Your task to perform on an android device: Show me popular games on the Play Store Image 0: 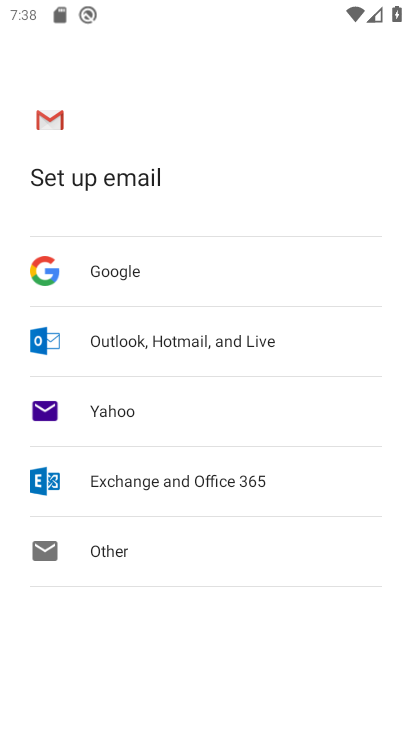
Step 0: press home button
Your task to perform on an android device: Show me popular games on the Play Store Image 1: 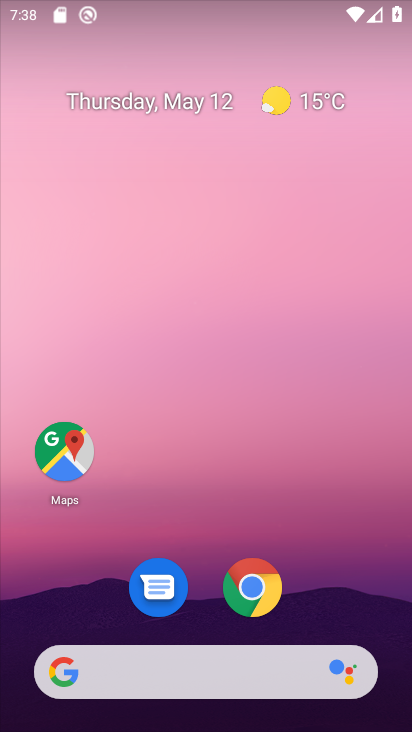
Step 1: drag from (386, 648) to (279, 88)
Your task to perform on an android device: Show me popular games on the Play Store Image 2: 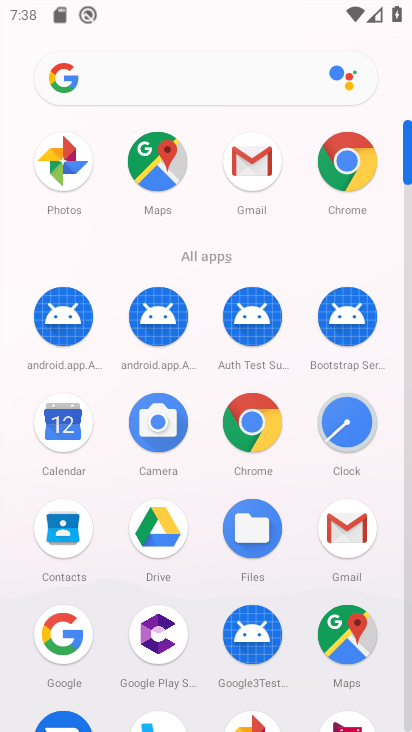
Step 2: drag from (310, 618) to (306, 293)
Your task to perform on an android device: Show me popular games on the Play Store Image 3: 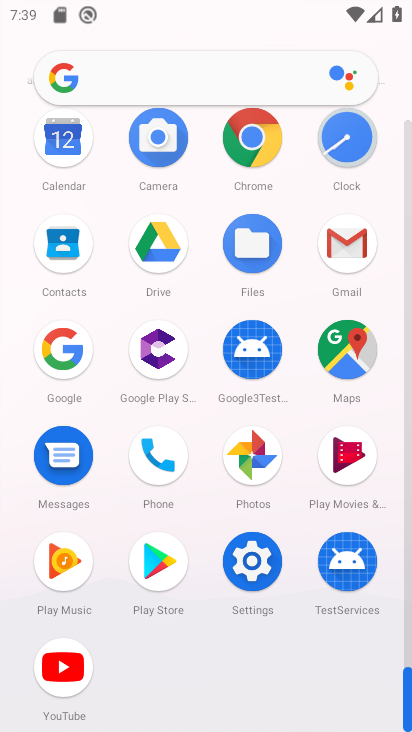
Step 3: click (148, 575)
Your task to perform on an android device: Show me popular games on the Play Store Image 4: 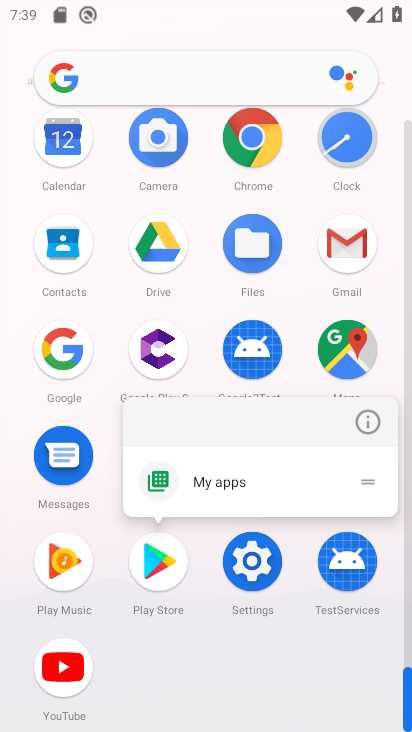
Step 4: click (148, 575)
Your task to perform on an android device: Show me popular games on the Play Store Image 5: 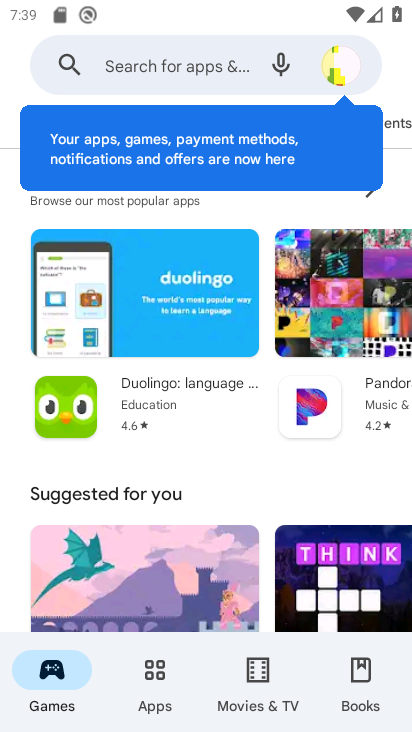
Step 5: task complete